Your task to perform on an android device: turn on bluetooth scan Image 0: 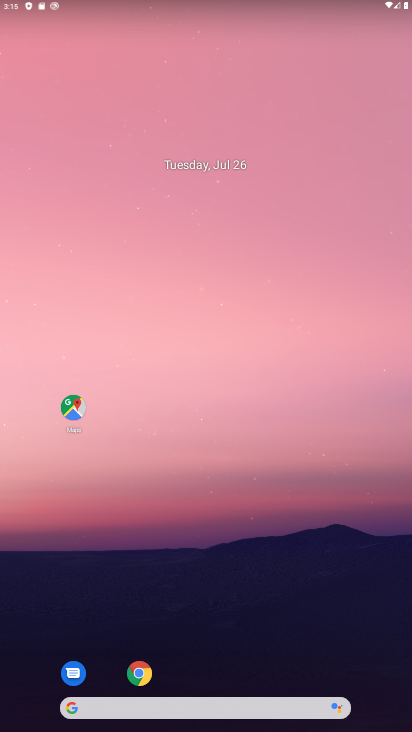
Step 0: drag from (303, 638) to (308, 16)
Your task to perform on an android device: turn on bluetooth scan Image 1: 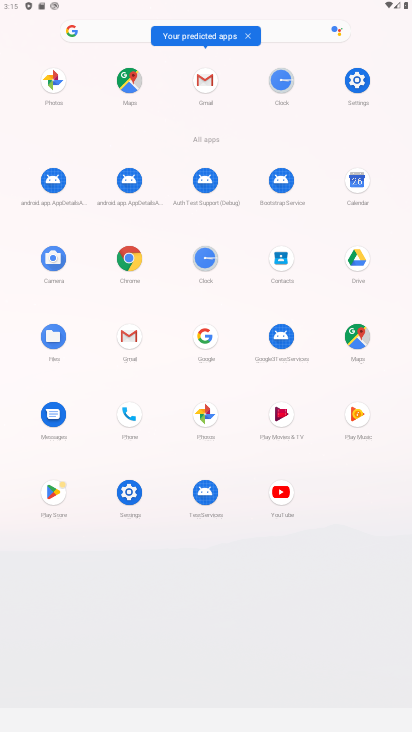
Step 1: click (351, 77)
Your task to perform on an android device: turn on bluetooth scan Image 2: 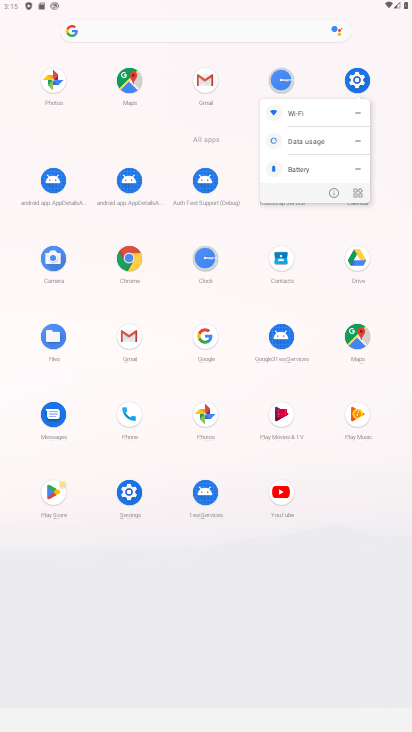
Step 2: click (362, 76)
Your task to perform on an android device: turn on bluetooth scan Image 3: 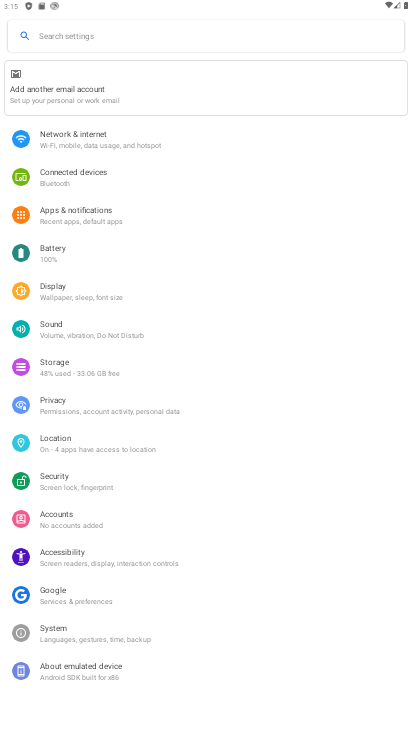
Step 3: click (59, 447)
Your task to perform on an android device: turn on bluetooth scan Image 4: 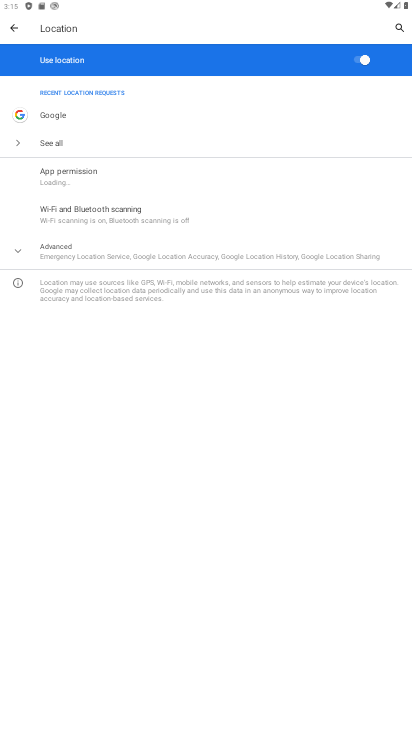
Step 4: click (83, 213)
Your task to perform on an android device: turn on bluetooth scan Image 5: 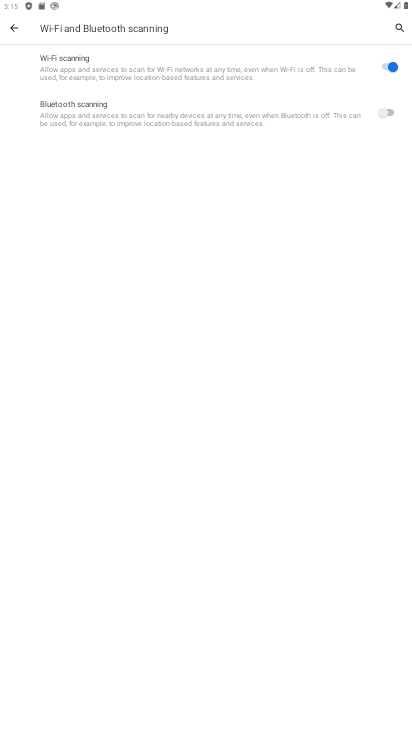
Step 5: click (384, 108)
Your task to perform on an android device: turn on bluetooth scan Image 6: 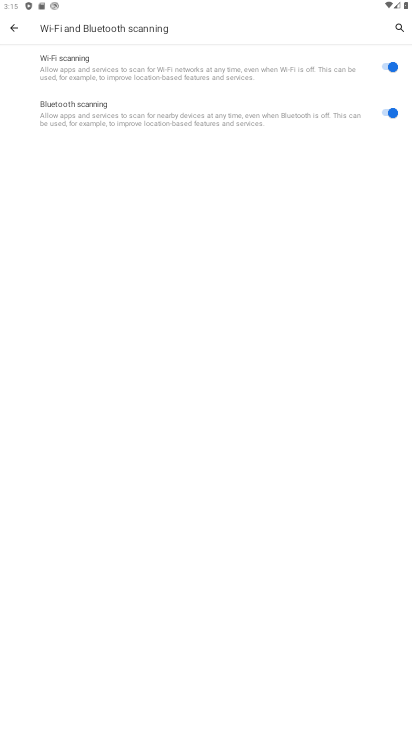
Step 6: task complete